Your task to perform on an android device: Open the calendar app, open the side menu, and click the "Day" option Image 0: 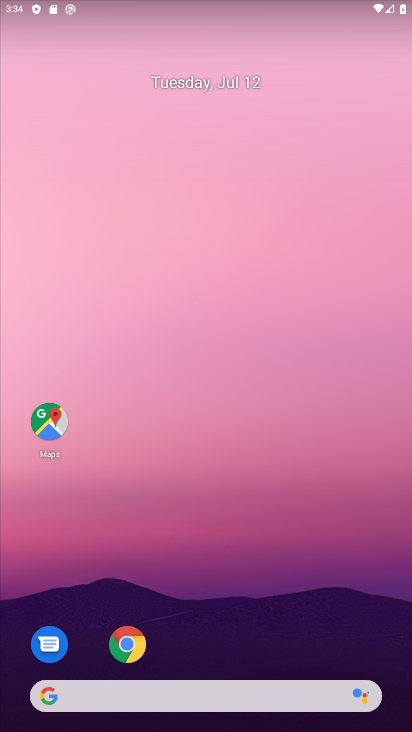
Step 0: drag from (309, 622) to (199, 142)
Your task to perform on an android device: Open the calendar app, open the side menu, and click the "Day" option Image 1: 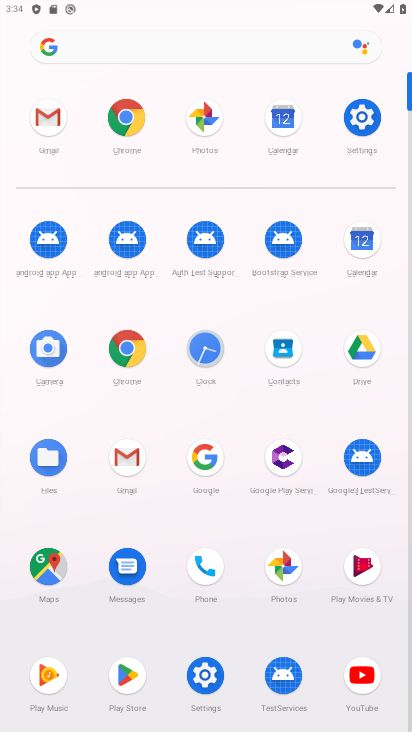
Step 1: click (359, 237)
Your task to perform on an android device: Open the calendar app, open the side menu, and click the "Day" option Image 2: 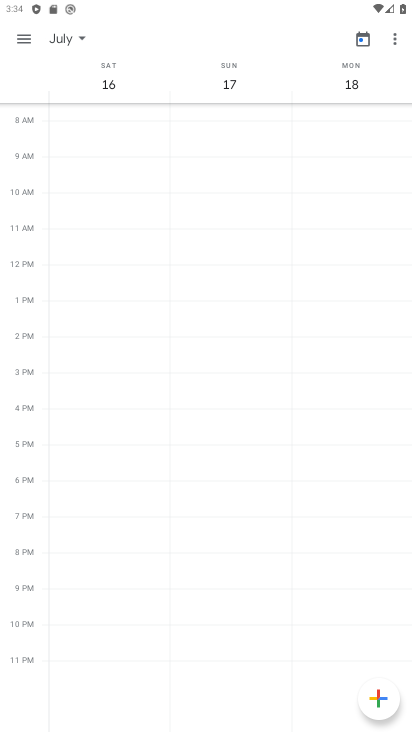
Step 2: click (29, 36)
Your task to perform on an android device: Open the calendar app, open the side menu, and click the "Day" option Image 3: 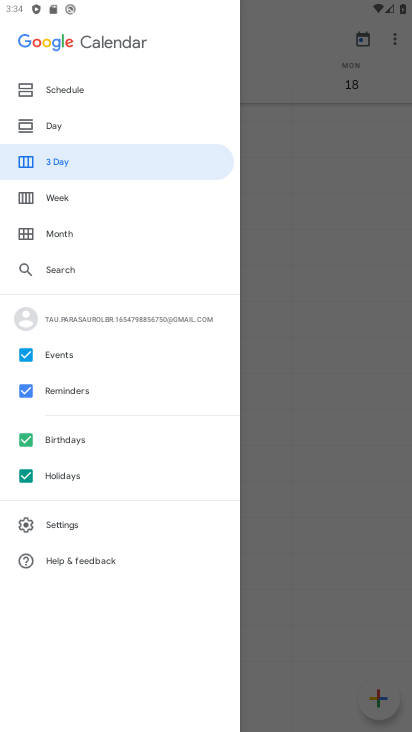
Step 3: click (55, 127)
Your task to perform on an android device: Open the calendar app, open the side menu, and click the "Day" option Image 4: 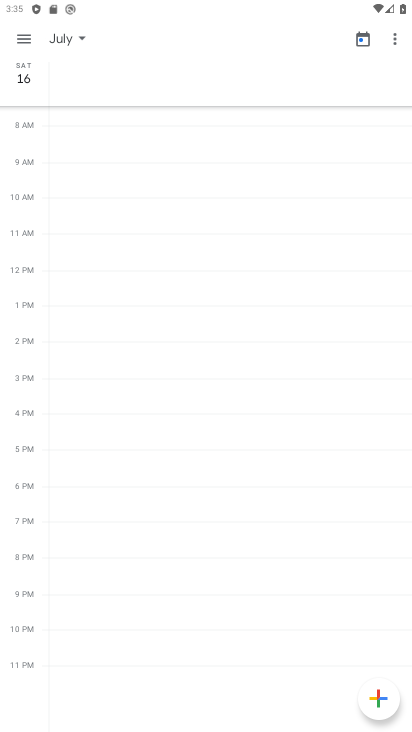
Step 4: task complete